Your task to perform on an android device: Open location settings Image 0: 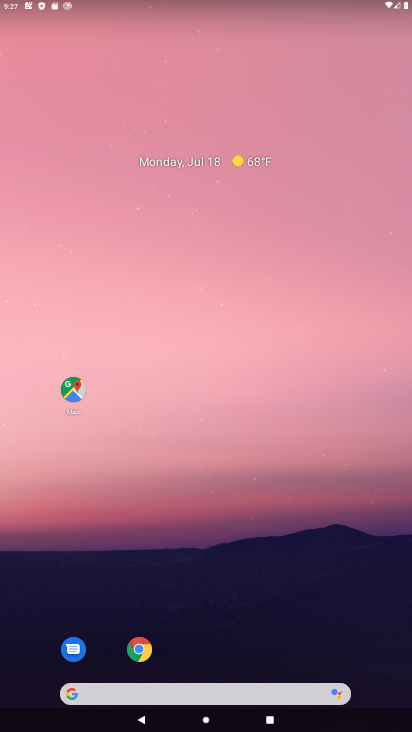
Step 0: drag from (172, 719) to (152, 134)
Your task to perform on an android device: Open location settings Image 1: 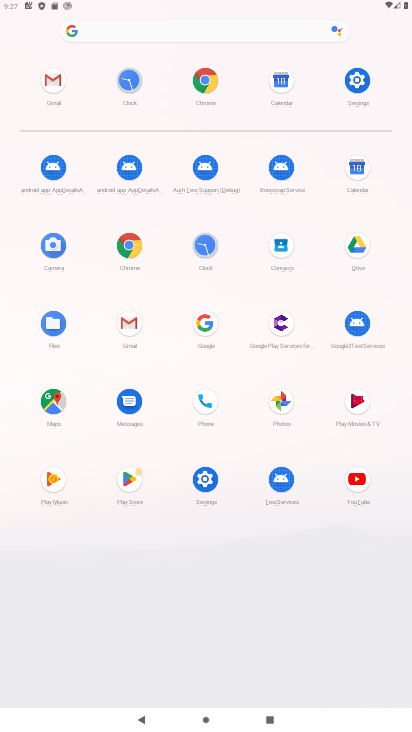
Step 1: click (359, 87)
Your task to perform on an android device: Open location settings Image 2: 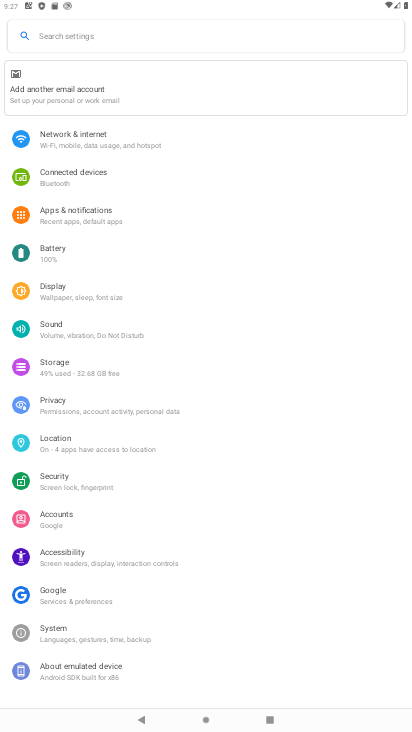
Step 2: click (88, 444)
Your task to perform on an android device: Open location settings Image 3: 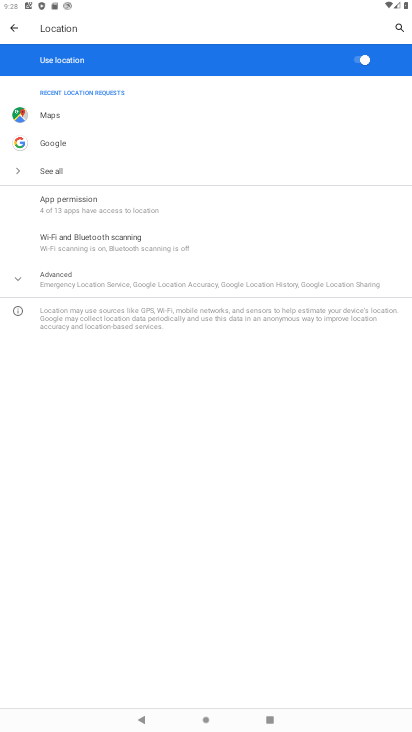
Step 3: task complete